Your task to perform on an android device: Check the news Image 0: 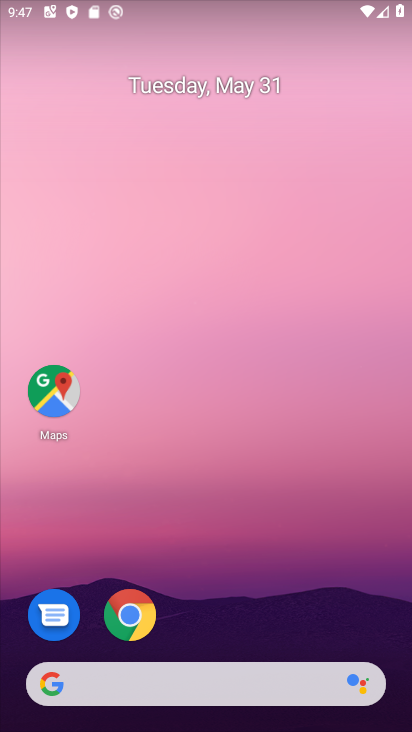
Step 0: drag from (306, 544) to (344, 12)
Your task to perform on an android device: Check the news Image 1: 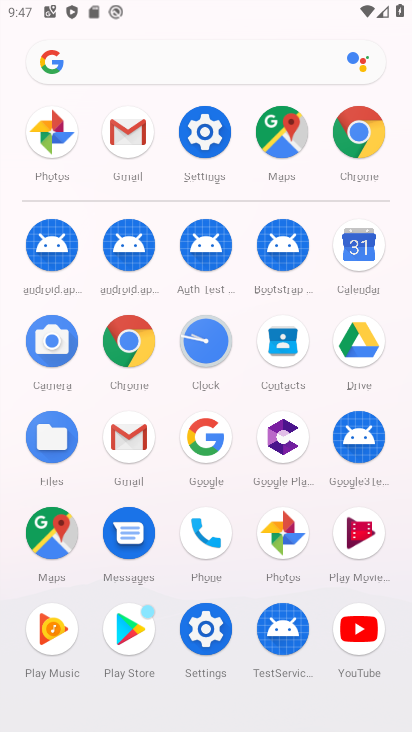
Step 1: click (365, 137)
Your task to perform on an android device: Check the news Image 2: 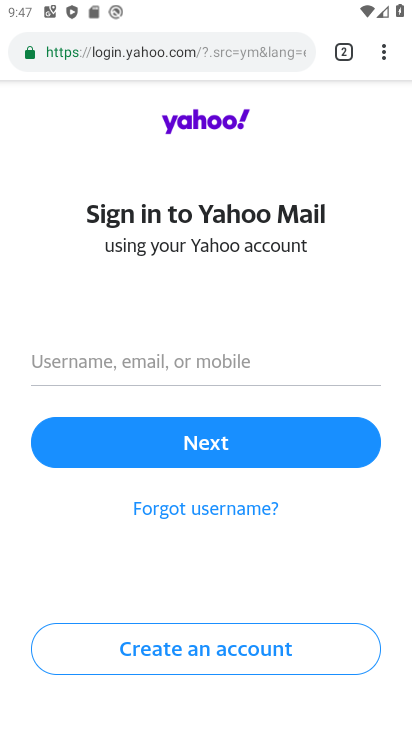
Step 2: click (151, 69)
Your task to perform on an android device: Check the news Image 3: 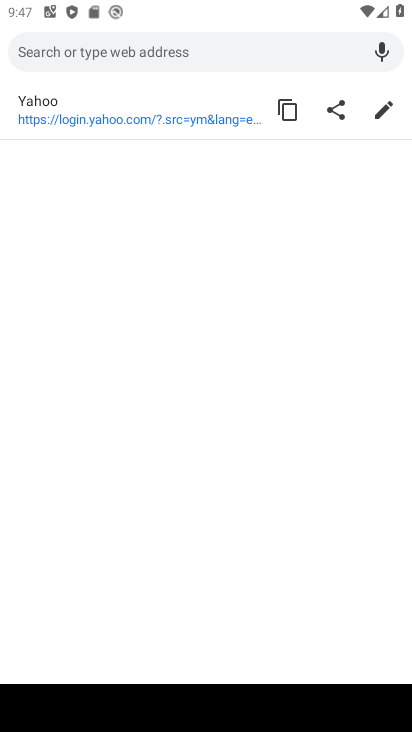
Step 3: press back button
Your task to perform on an android device: Check the news Image 4: 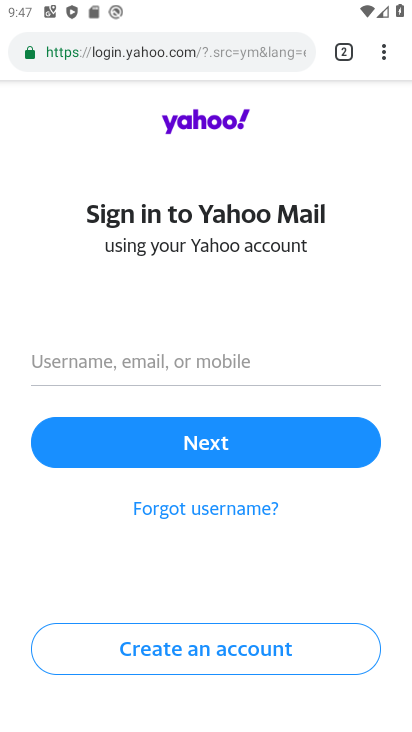
Step 4: drag from (383, 54) to (213, 112)
Your task to perform on an android device: Check the news Image 5: 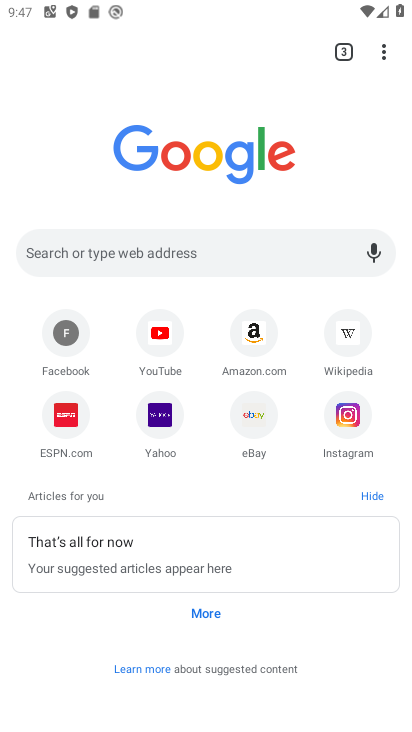
Step 5: drag from (287, 698) to (272, 222)
Your task to perform on an android device: Check the news Image 6: 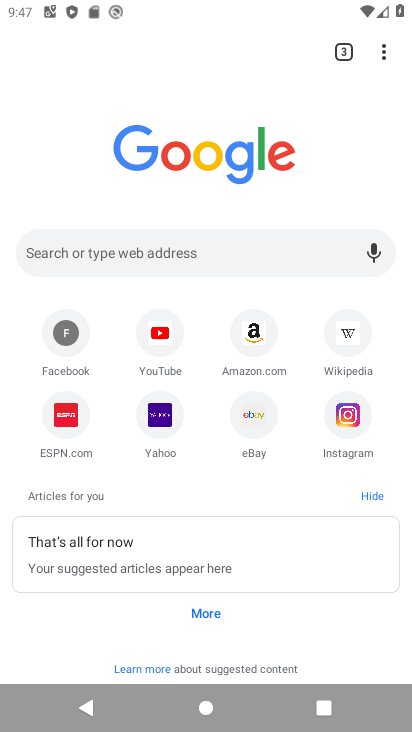
Step 6: click (224, 617)
Your task to perform on an android device: Check the news Image 7: 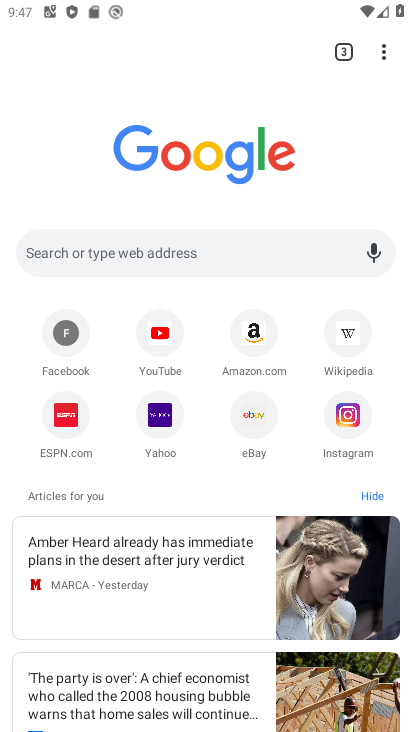
Step 7: task complete